Your task to perform on an android device: What's the weather going to be this weekend? Image 0: 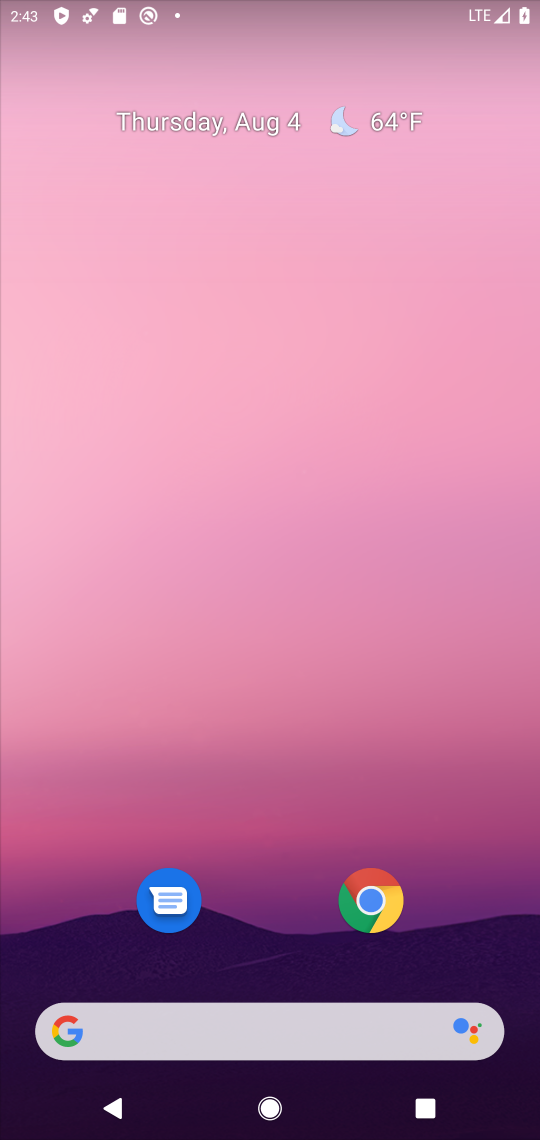
Step 0: drag from (476, 915) to (268, 0)
Your task to perform on an android device: What's the weather going to be this weekend? Image 1: 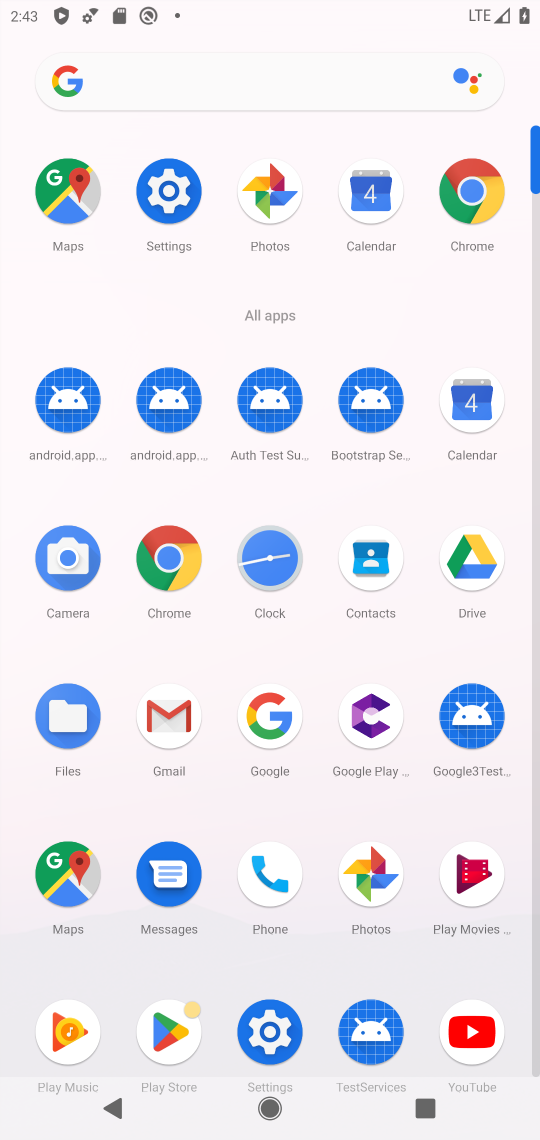
Step 1: click (473, 215)
Your task to perform on an android device: What's the weather going to be this weekend? Image 2: 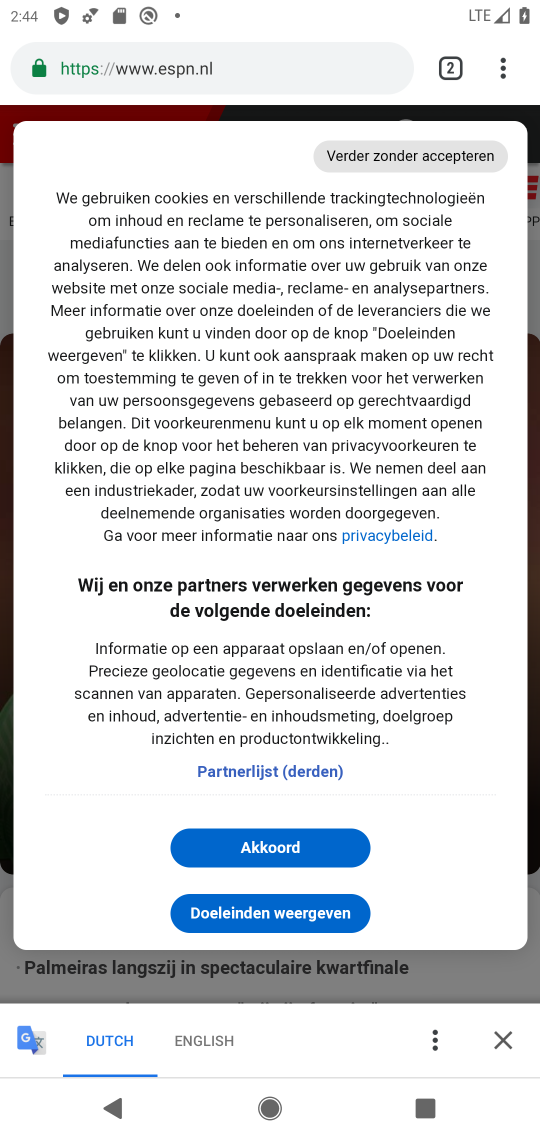
Step 2: click (275, 76)
Your task to perform on an android device: What's the weather going to be this weekend? Image 3: 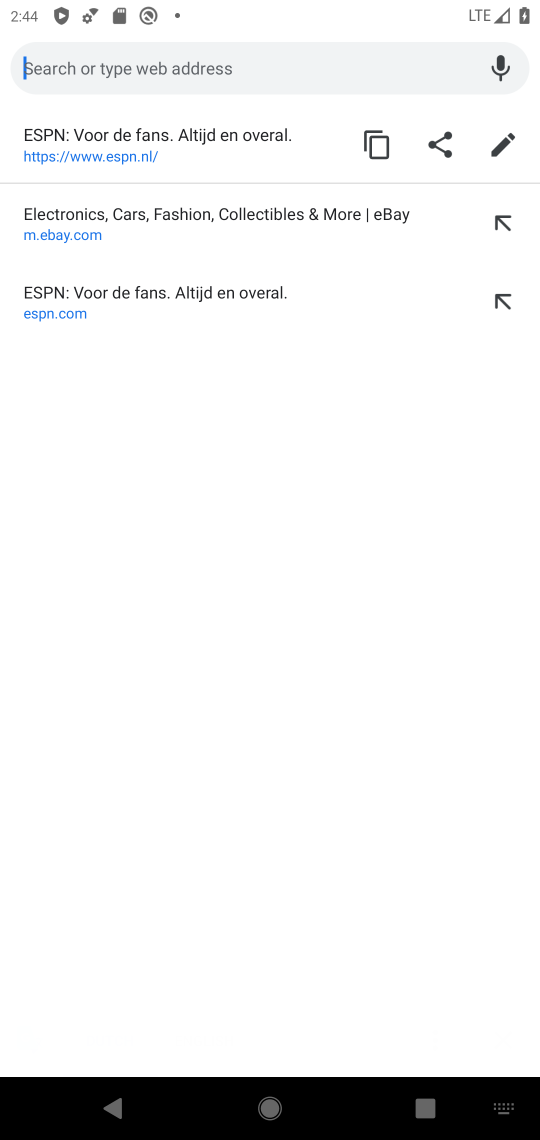
Step 3: type "What's the weather going to be this weekend?"
Your task to perform on an android device: What's the weather going to be this weekend? Image 4: 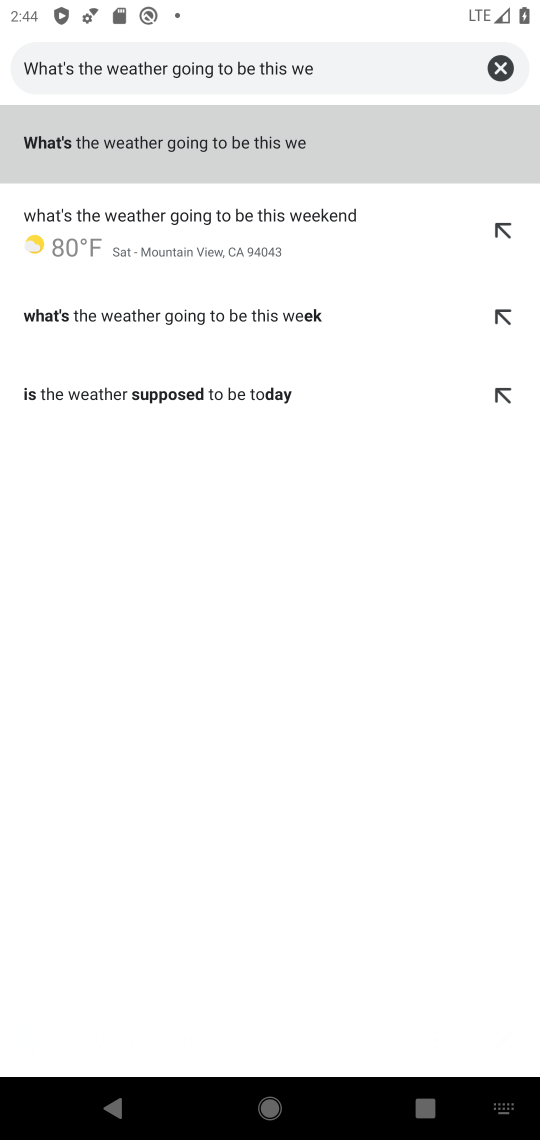
Step 4: click (268, 139)
Your task to perform on an android device: What's the weather going to be this weekend? Image 5: 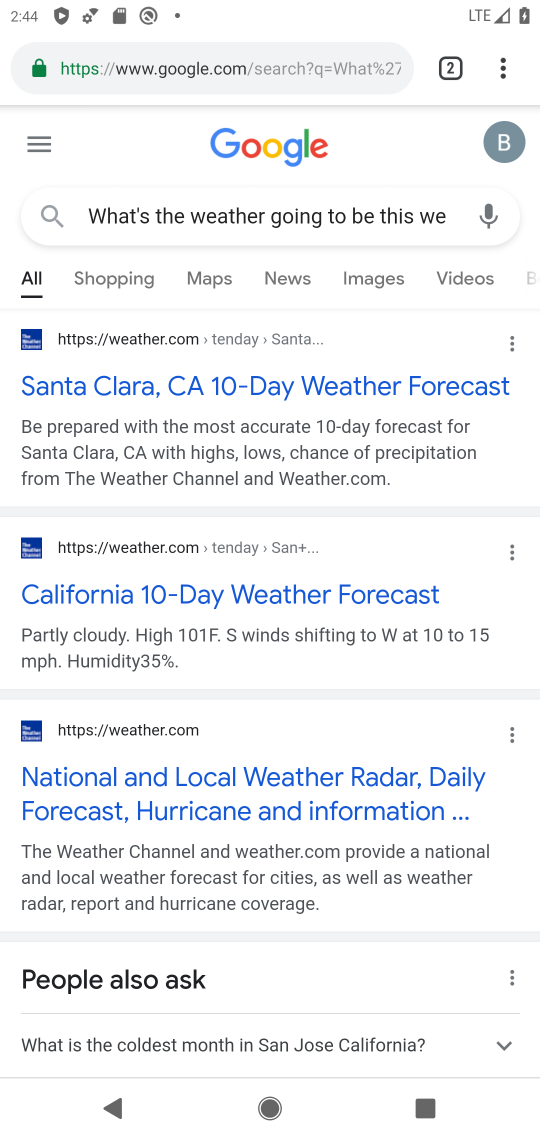
Step 5: click (301, 390)
Your task to perform on an android device: What's the weather going to be this weekend? Image 6: 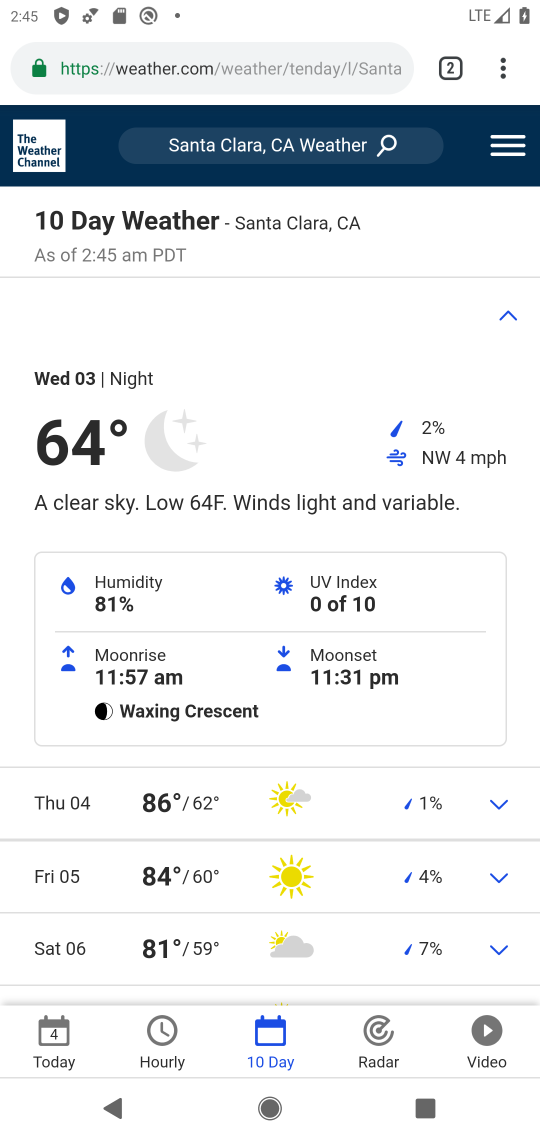
Step 6: task complete